Your task to perform on an android device: Open the Play Movies app and select the watchlist tab. Image 0: 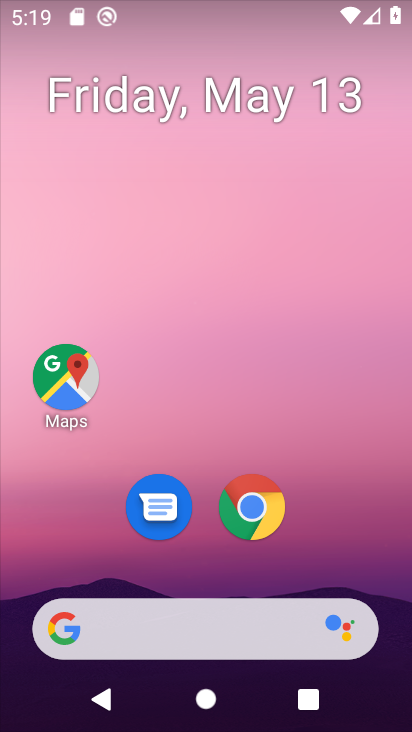
Step 0: drag from (349, 544) to (292, 44)
Your task to perform on an android device: Open the Play Movies app and select the watchlist tab. Image 1: 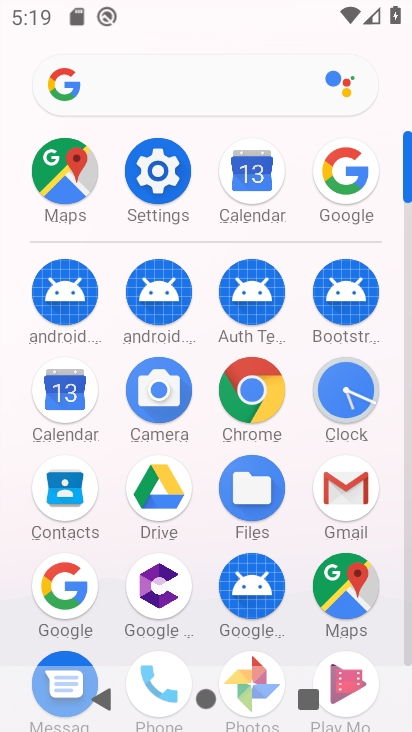
Step 1: drag from (310, 526) to (316, 253)
Your task to perform on an android device: Open the Play Movies app and select the watchlist tab. Image 2: 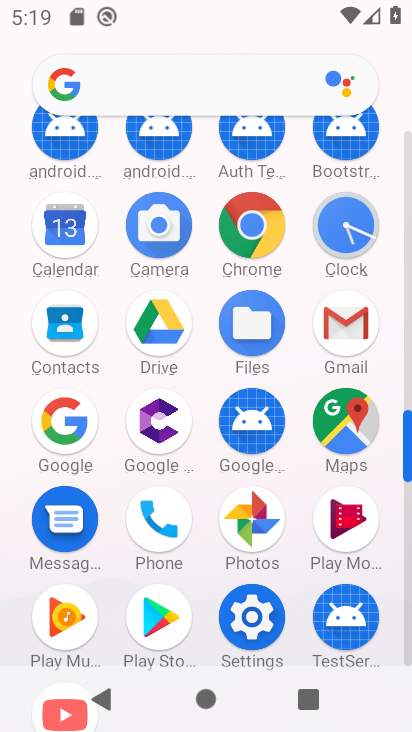
Step 2: click (347, 514)
Your task to perform on an android device: Open the Play Movies app and select the watchlist tab. Image 3: 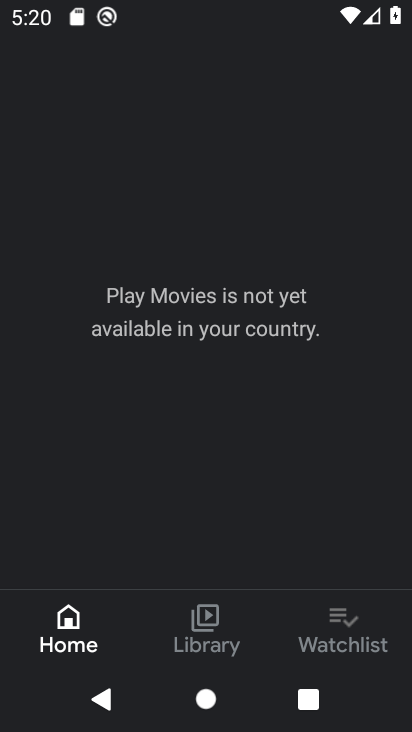
Step 3: click (358, 629)
Your task to perform on an android device: Open the Play Movies app and select the watchlist tab. Image 4: 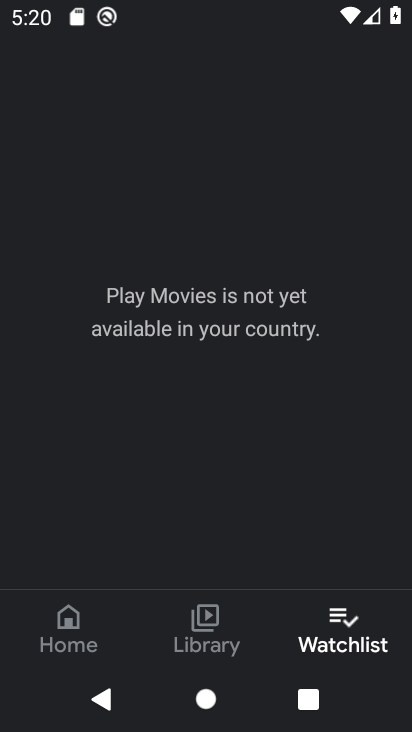
Step 4: task complete